Your task to perform on an android device: check out phone information Image 0: 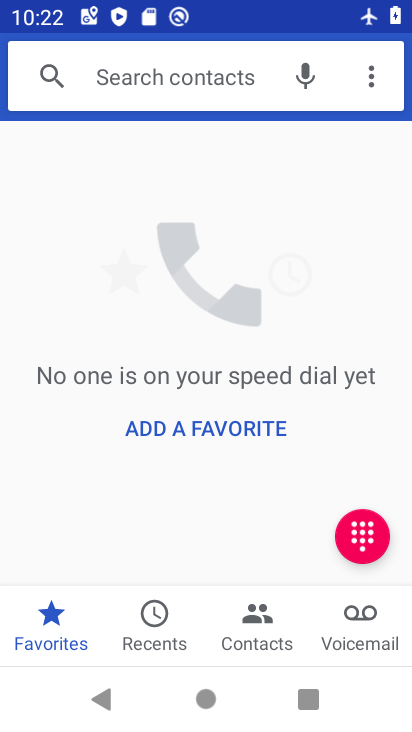
Step 0: press home button
Your task to perform on an android device: check out phone information Image 1: 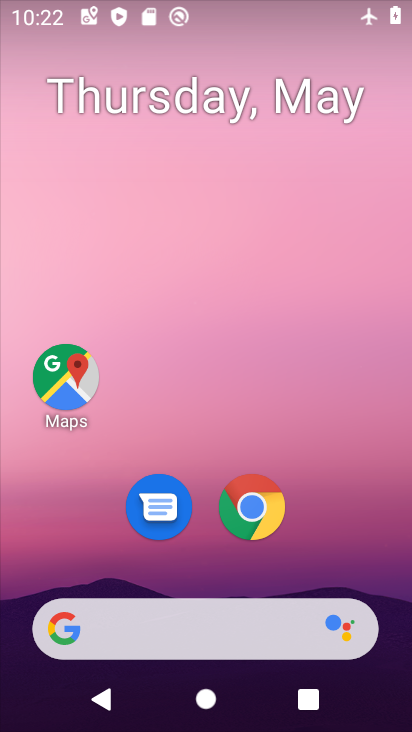
Step 1: drag from (246, 675) to (258, 58)
Your task to perform on an android device: check out phone information Image 2: 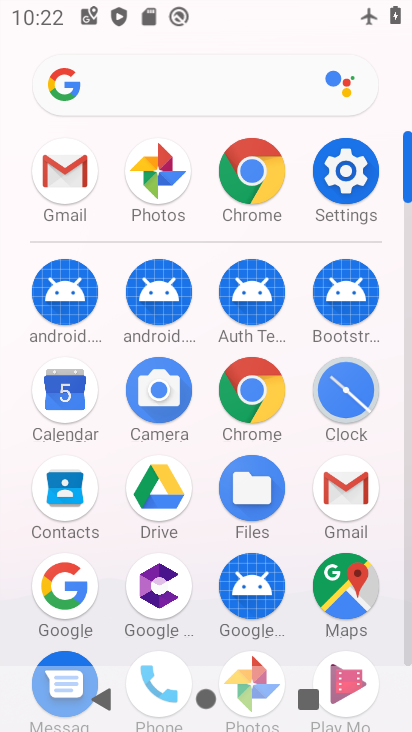
Step 2: click (360, 182)
Your task to perform on an android device: check out phone information Image 3: 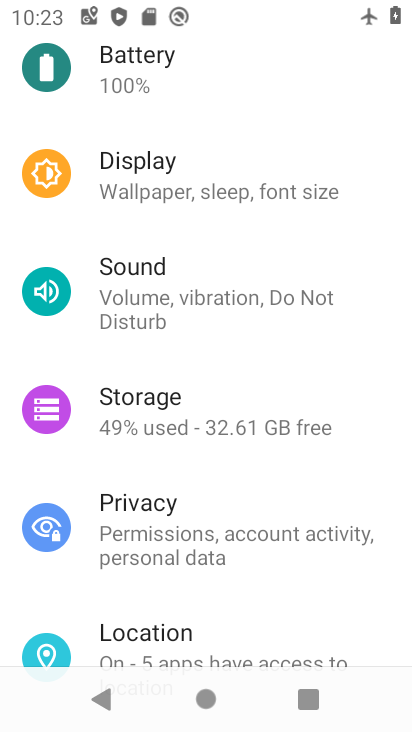
Step 3: drag from (162, 563) to (211, 20)
Your task to perform on an android device: check out phone information Image 4: 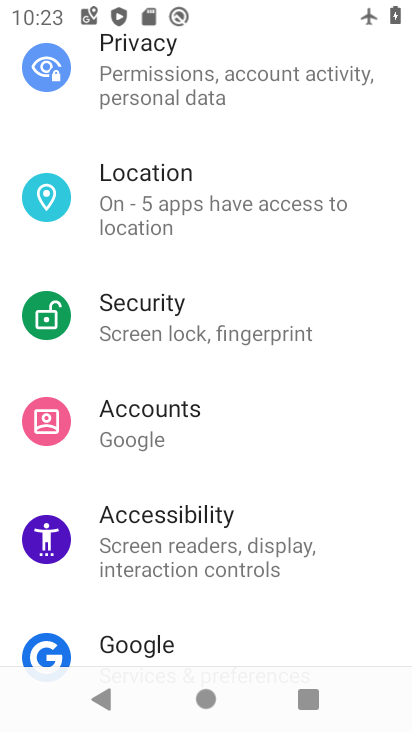
Step 4: drag from (215, 535) to (229, 23)
Your task to perform on an android device: check out phone information Image 5: 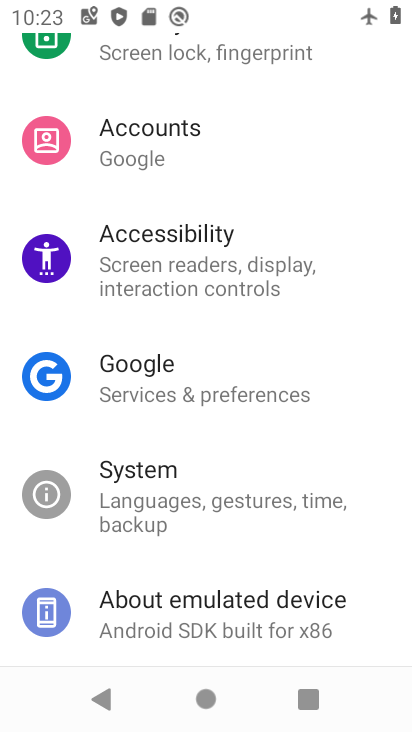
Step 5: drag from (162, 556) to (168, 162)
Your task to perform on an android device: check out phone information Image 6: 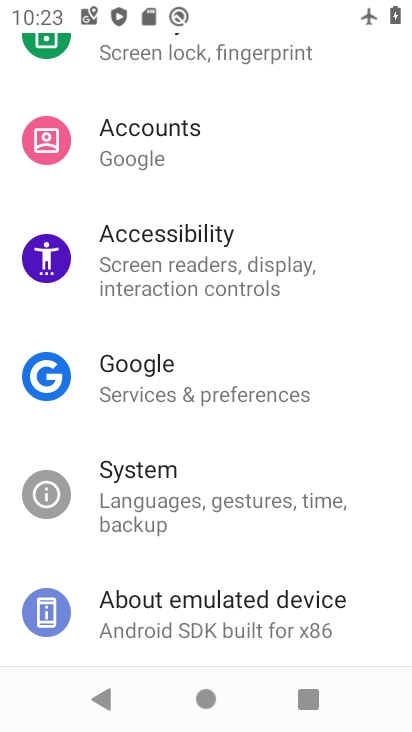
Step 6: click (207, 608)
Your task to perform on an android device: check out phone information Image 7: 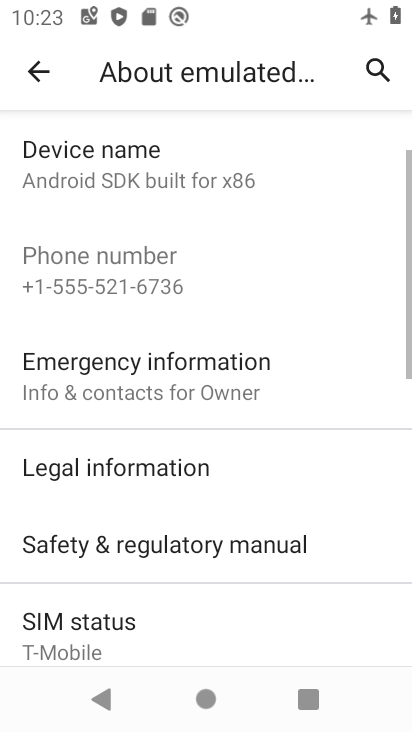
Step 7: task complete